Your task to perform on an android device: check storage Image 0: 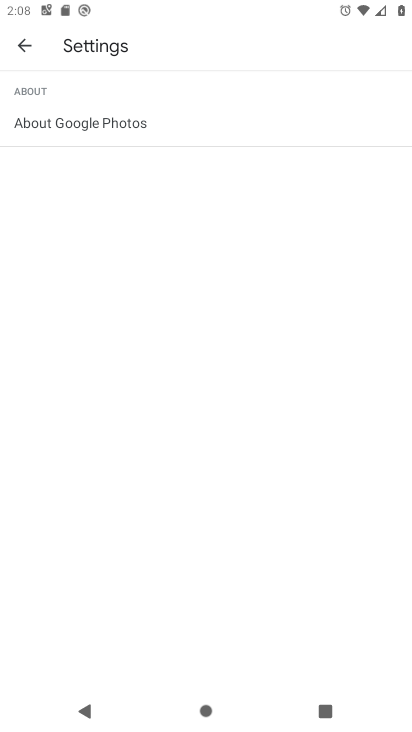
Step 0: press home button
Your task to perform on an android device: check storage Image 1: 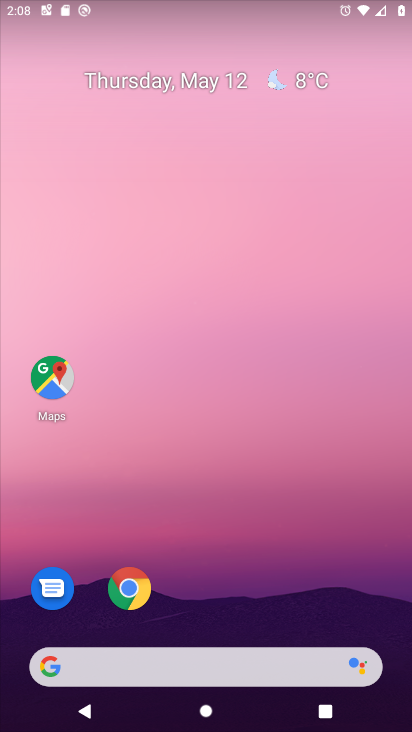
Step 1: drag from (303, 536) to (240, 39)
Your task to perform on an android device: check storage Image 2: 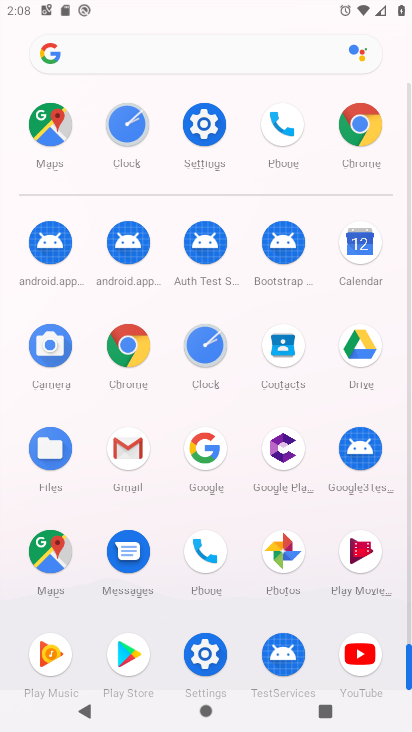
Step 2: click (206, 123)
Your task to perform on an android device: check storage Image 3: 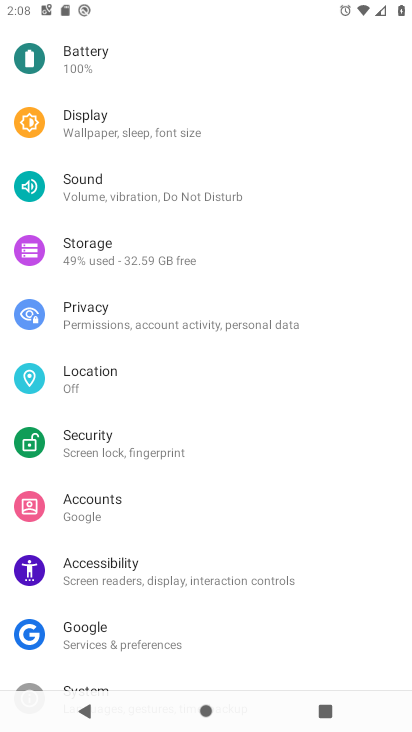
Step 3: click (93, 259)
Your task to perform on an android device: check storage Image 4: 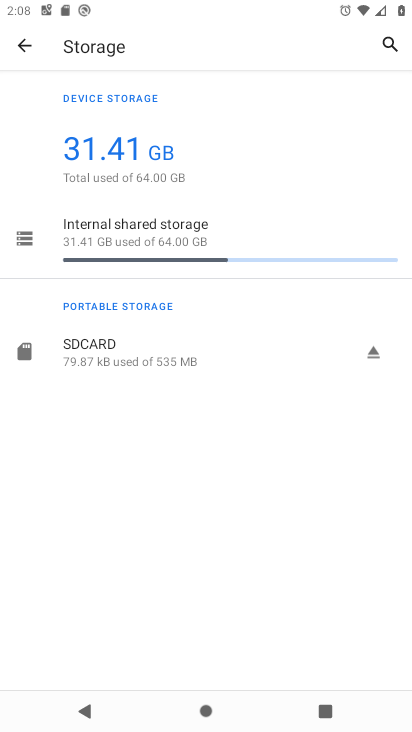
Step 4: click (93, 259)
Your task to perform on an android device: check storage Image 5: 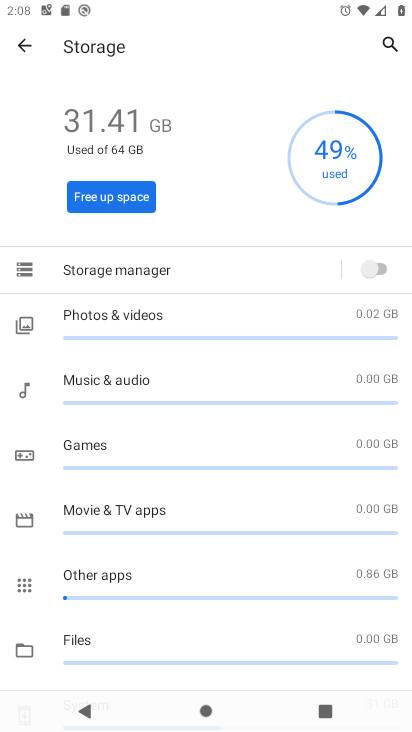
Step 5: task complete